Your task to perform on an android device: Search for pizza restaurants on Maps Image 0: 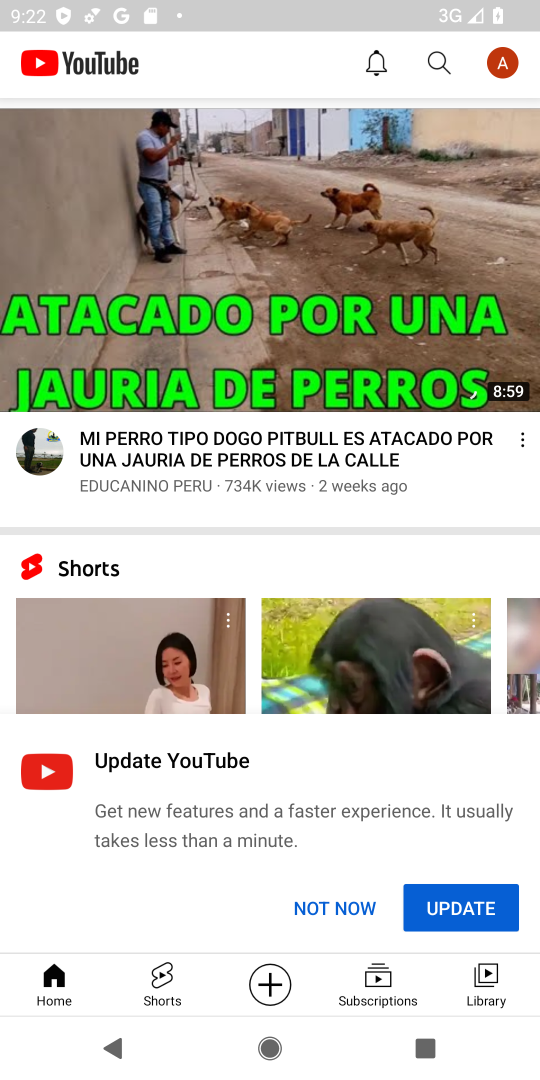
Step 0: press home button
Your task to perform on an android device: Search for pizza restaurants on Maps Image 1: 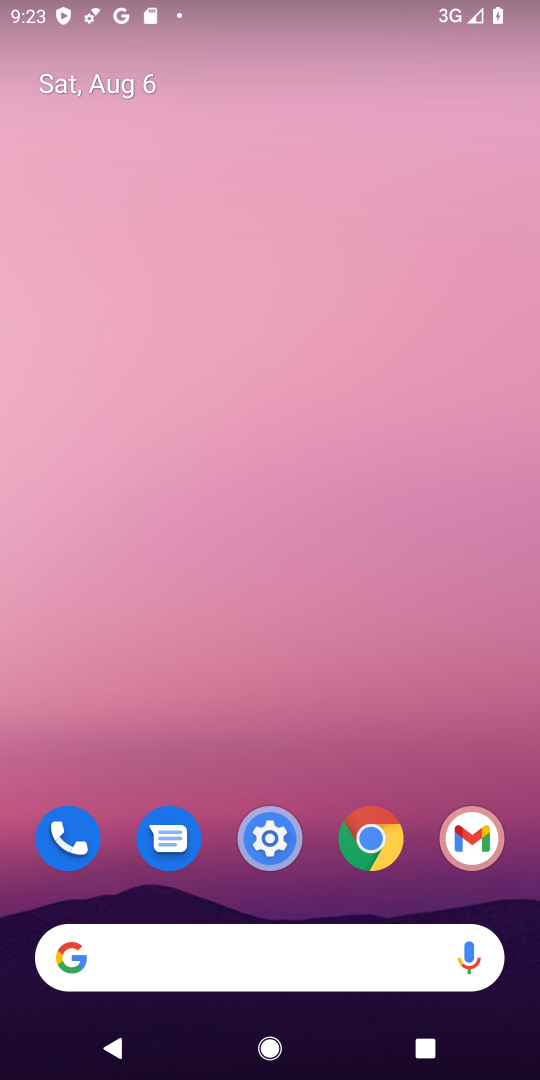
Step 1: drag from (414, 765) to (186, 21)
Your task to perform on an android device: Search for pizza restaurants on Maps Image 2: 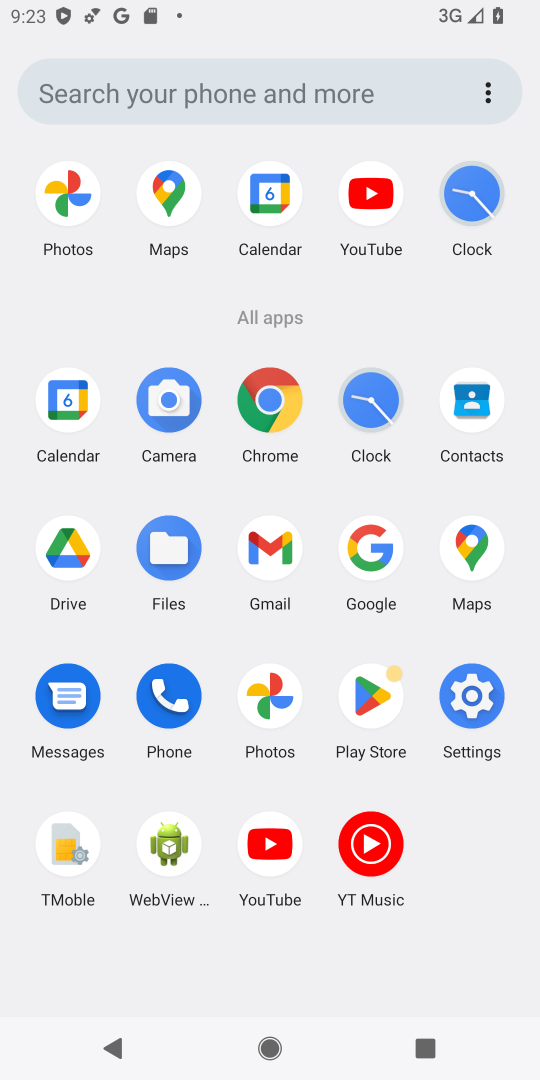
Step 2: click (184, 270)
Your task to perform on an android device: Search for pizza restaurants on Maps Image 3: 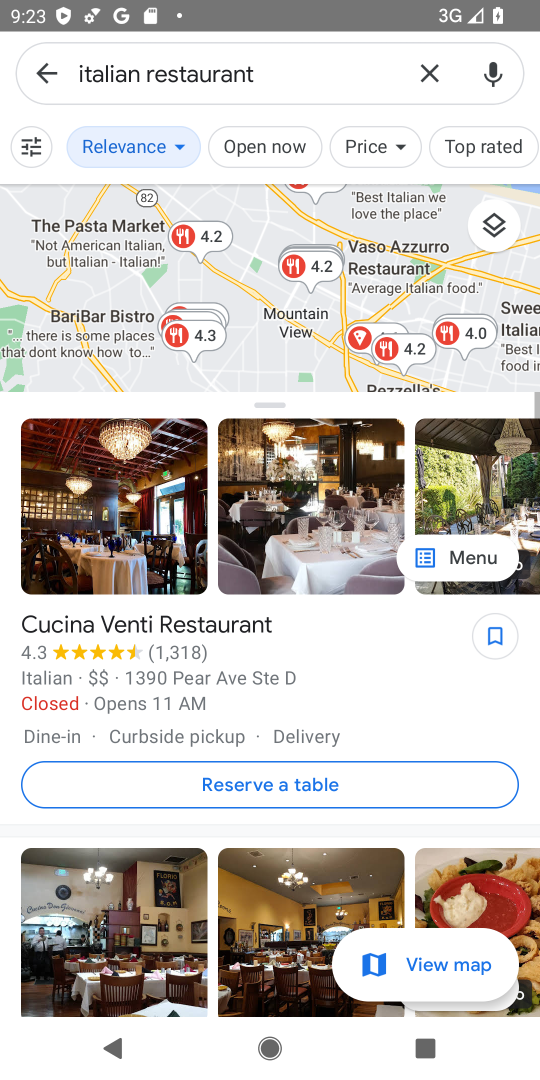
Step 3: click (435, 75)
Your task to perform on an android device: Search for pizza restaurants on Maps Image 4: 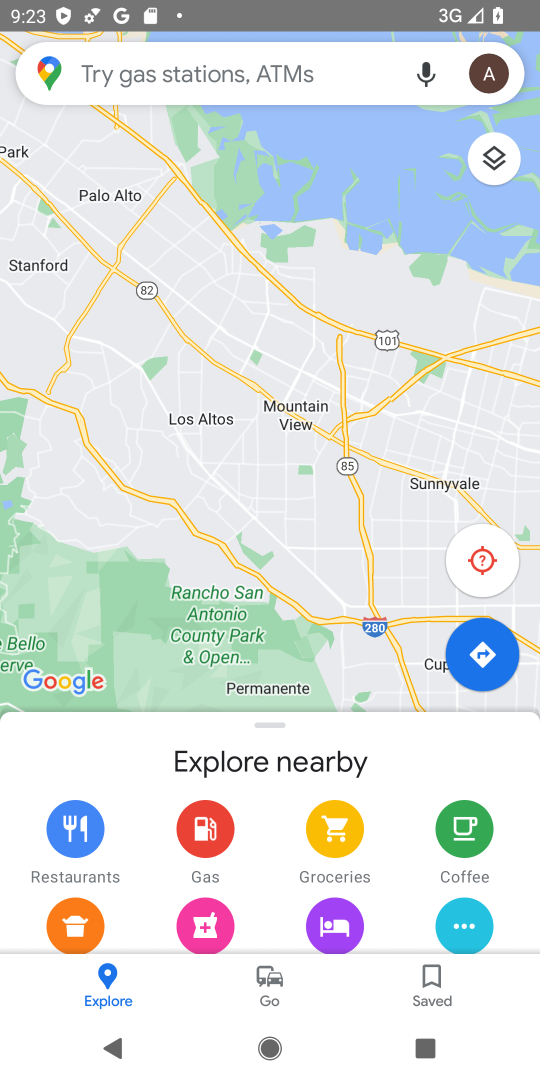
Step 4: click (279, 68)
Your task to perform on an android device: Search for pizza restaurants on Maps Image 5: 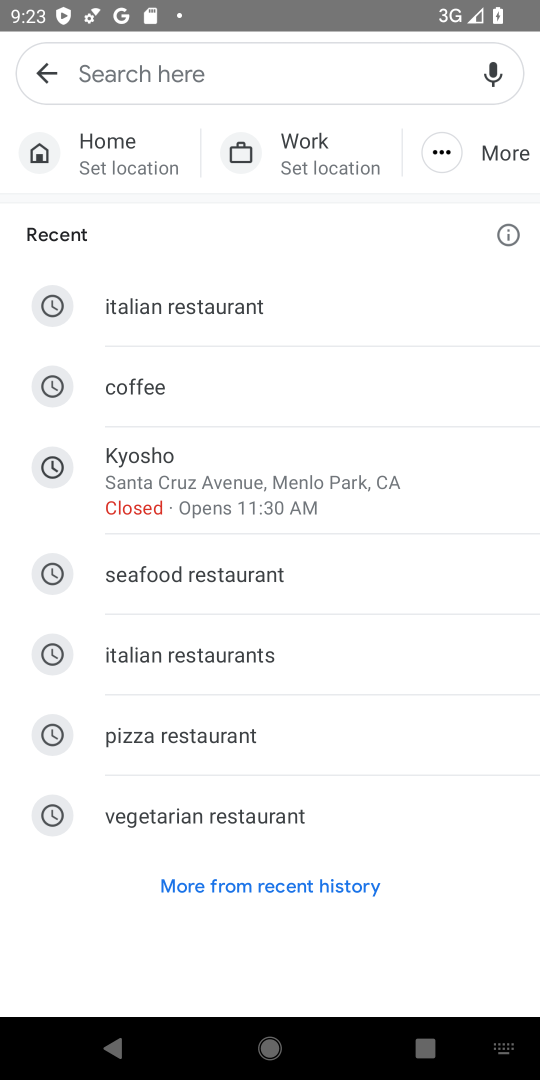
Step 5: click (296, 741)
Your task to perform on an android device: Search for pizza restaurants on Maps Image 6: 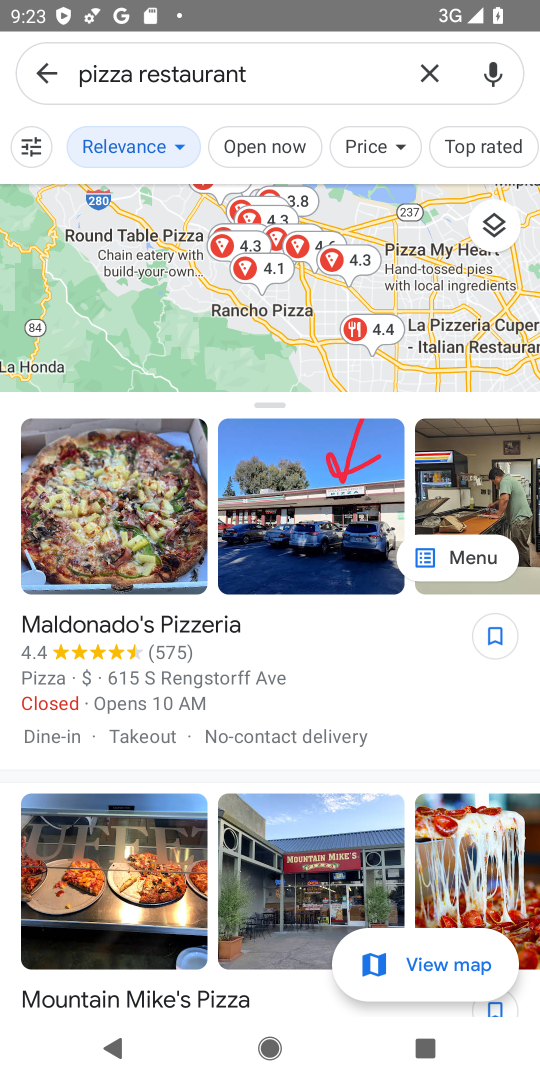
Step 6: task complete